Your task to perform on an android device: open app "Microsoft Excel" (install if not already installed), go to login, and select forgot password Image 0: 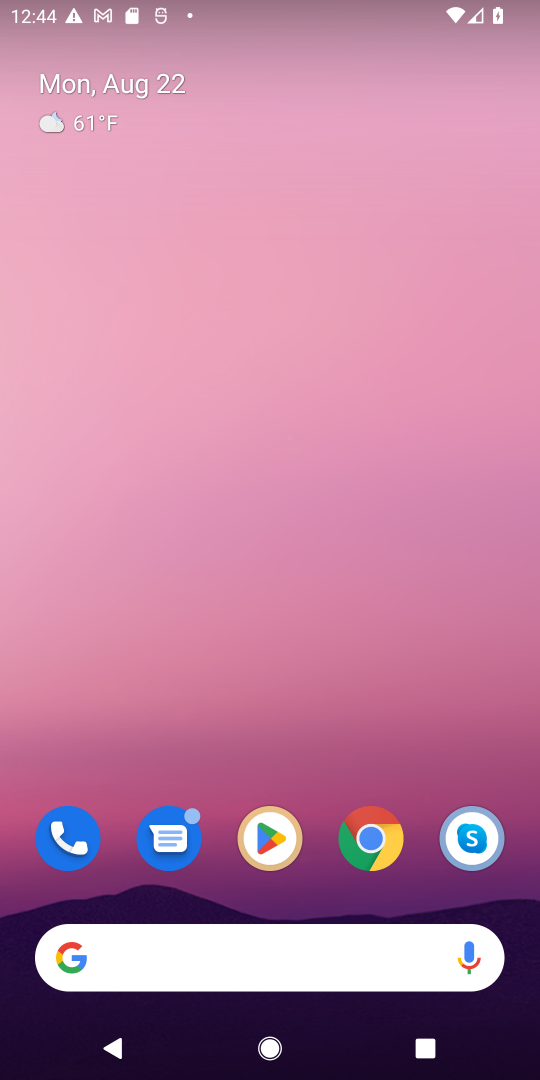
Step 0: drag from (354, 933) to (318, 557)
Your task to perform on an android device: open app "Microsoft Excel" (install if not already installed), go to login, and select forgot password Image 1: 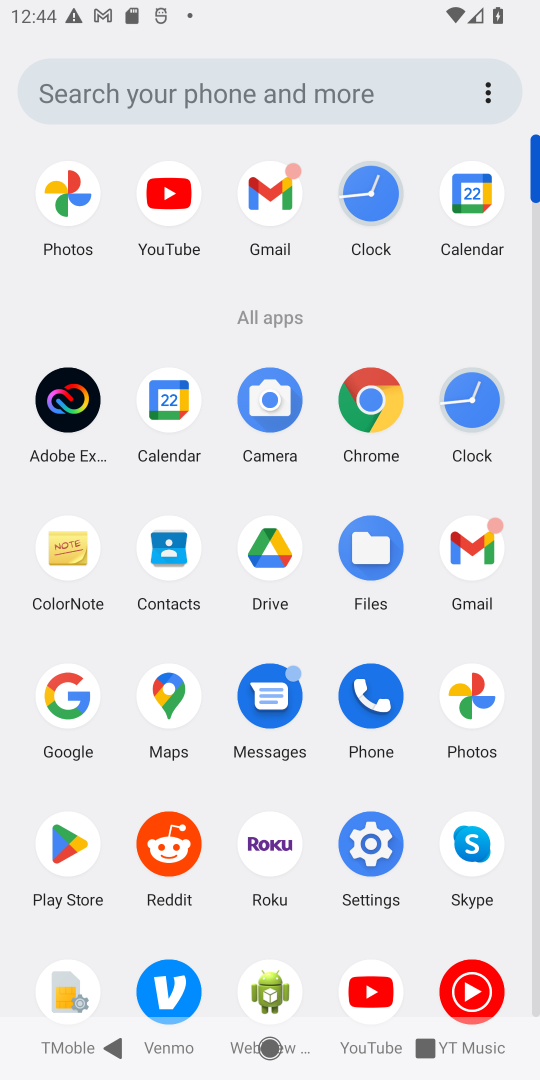
Step 1: click (76, 848)
Your task to perform on an android device: open app "Microsoft Excel" (install if not already installed), go to login, and select forgot password Image 2: 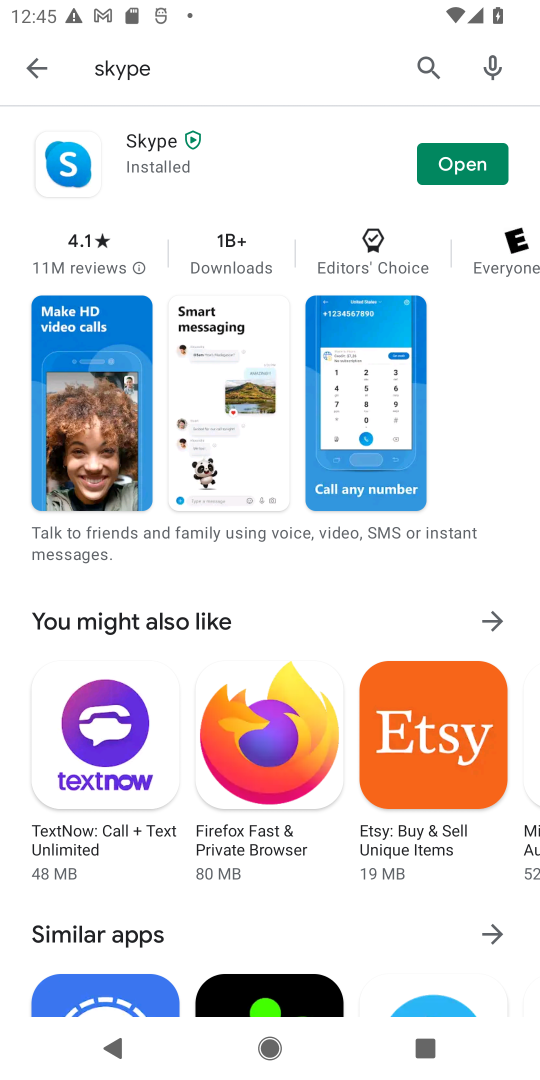
Step 2: click (405, 67)
Your task to perform on an android device: open app "Microsoft Excel" (install if not already installed), go to login, and select forgot password Image 3: 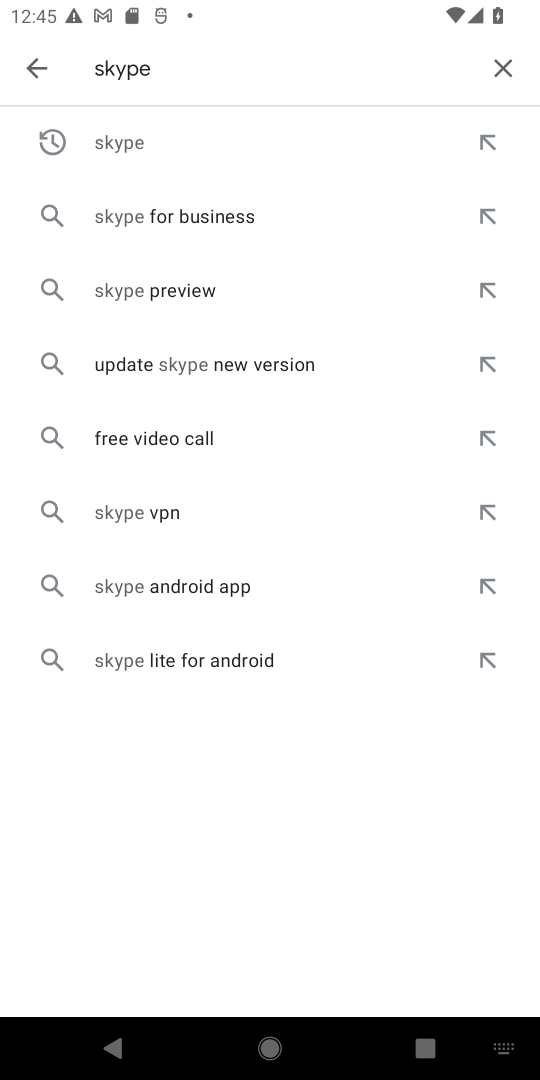
Step 3: type "Microsoft Excel"
Your task to perform on an android device: open app "Microsoft Excel" (install if not already installed), go to login, and select forgot password Image 4: 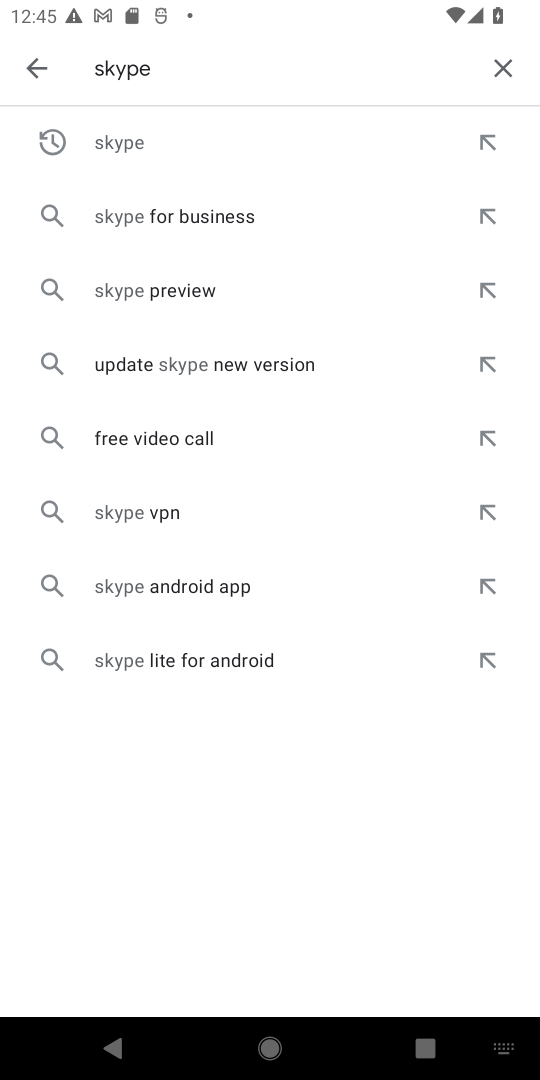
Step 4: click (501, 69)
Your task to perform on an android device: open app "Microsoft Excel" (install if not already installed), go to login, and select forgot password Image 5: 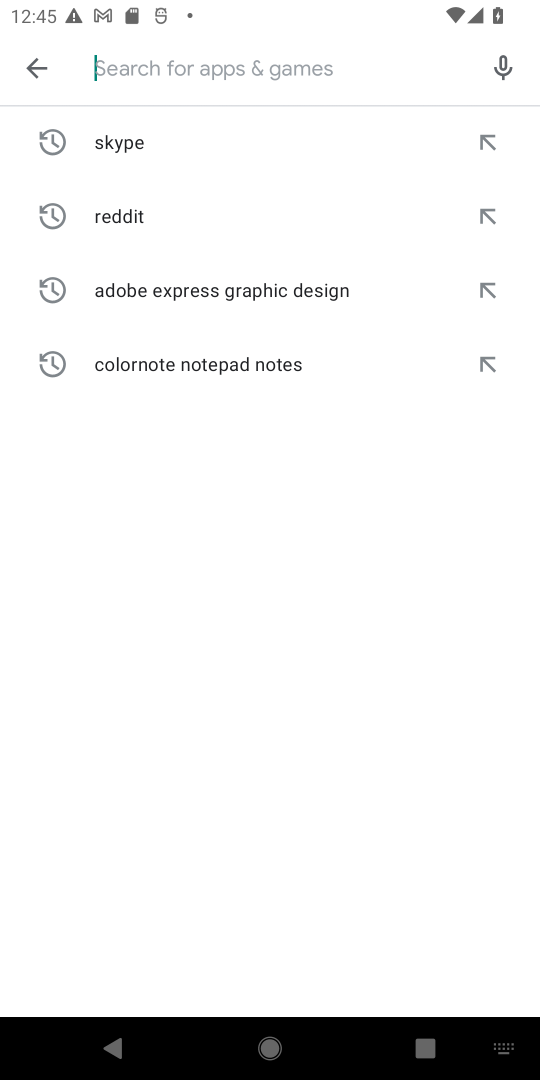
Step 5: type "Microsoft Excel"
Your task to perform on an android device: open app "Microsoft Excel" (install if not already installed), go to login, and select forgot password Image 6: 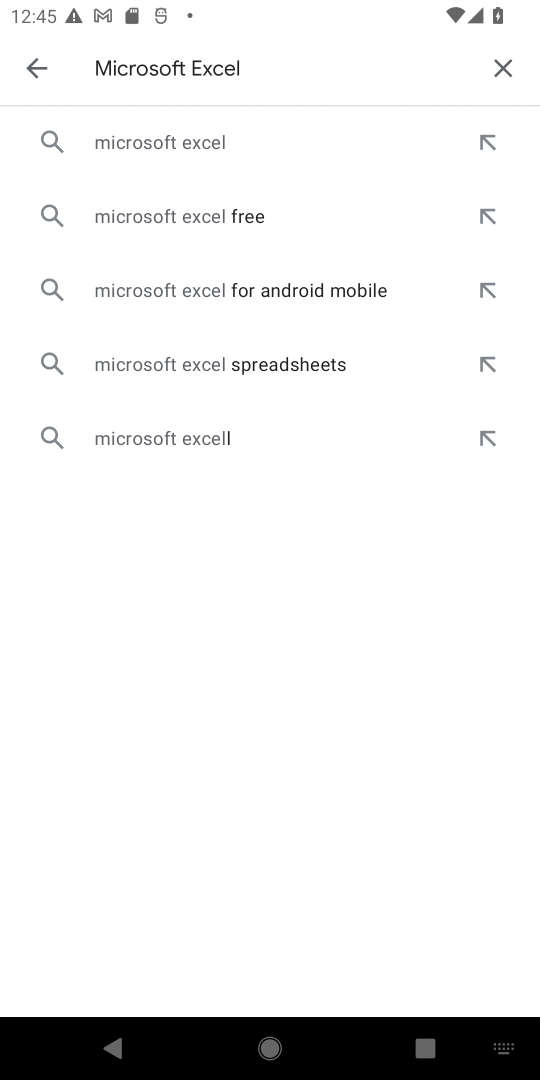
Step 6: click (187, 142)
Your task to perform on an android device: open app "Microsoft Excel" (install if not already installed), go to login, and select forgot password Image 7: 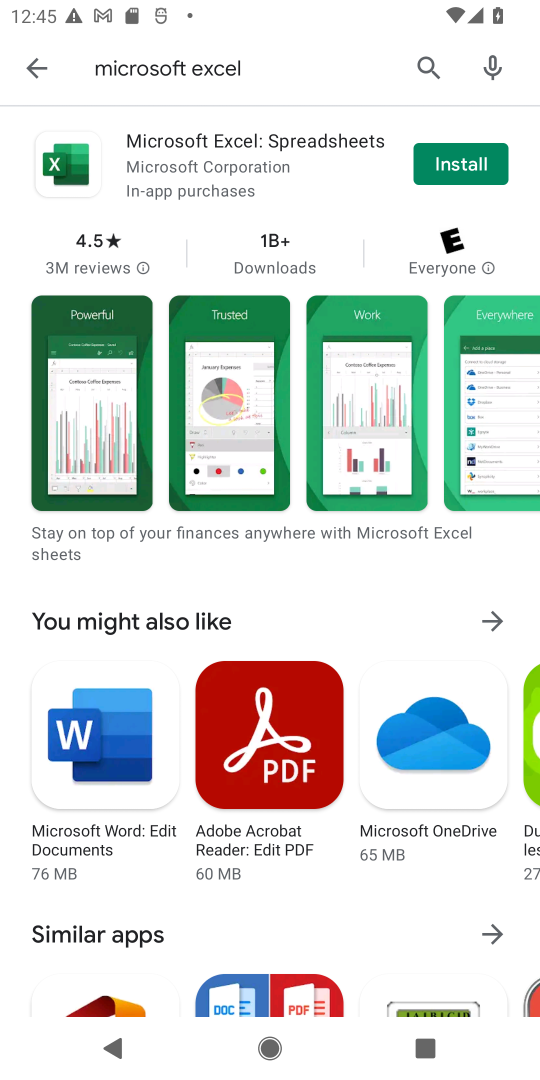
Step 7: click (446, 161)
Your task to perform on an android device: open app "Microsoft Excel" (install if not already installed), go to login, and select forgot password Image 8: 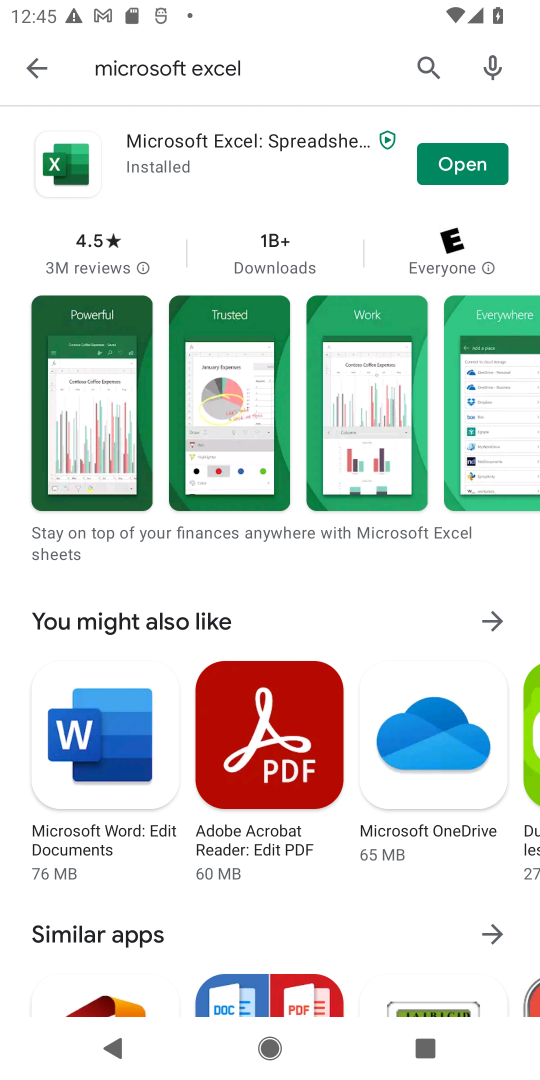
Step 8: click (443, 160)
Your task to perform on an android device: open app "Microsoft Excel" (install if not already installed), go to login, and select forgot password Image 9: 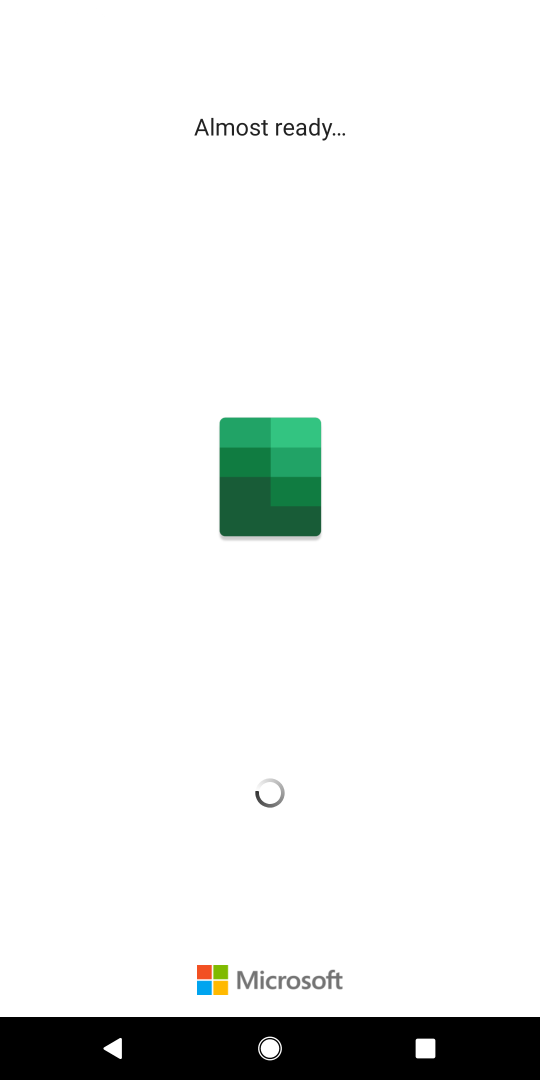
Step 9: task complete